Your task to perform on an android device: Search for "macbook air" on walmart.com, select the first entry, add it to the cart, then select checkout. Image 0: 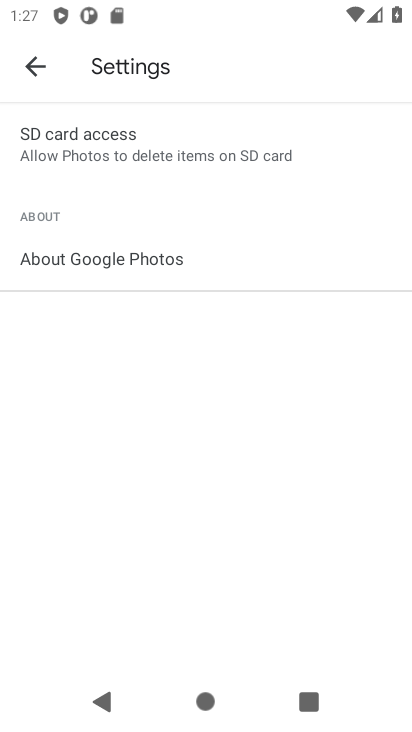
Step 0: press home button
Your task to perform on an android device: Search for "macbook air" on walmart.com, select the first entry, add it to the cart, then select checkout. Image 1: 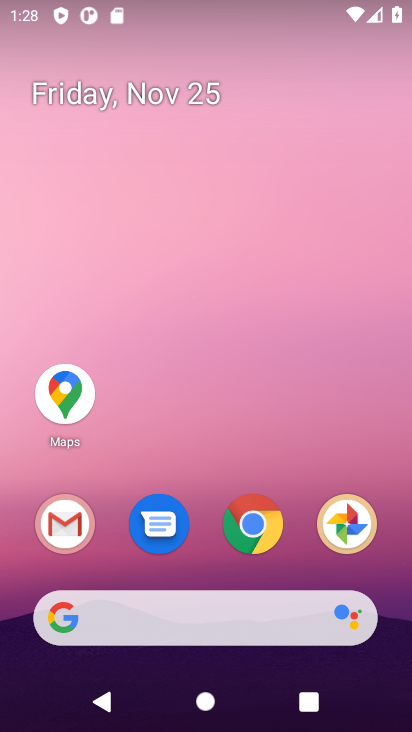
Step 1: click (237, 535)
Your task to perform on an android device: Search for "macbook air" on walmart.com, select the first entry, add it to the cart, then select checkout. Image 2: 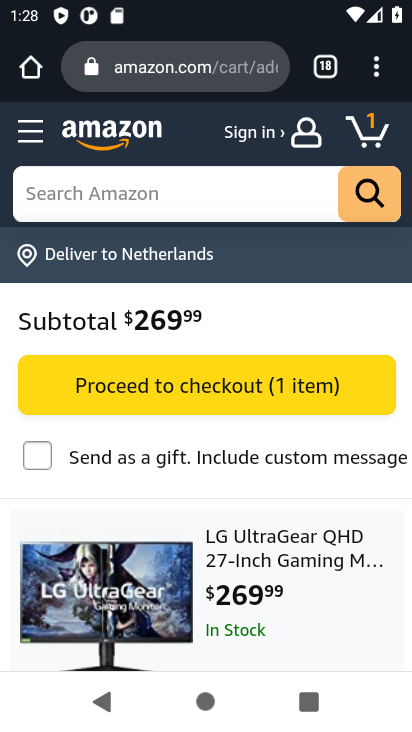
Step 2: click (180, 68)
Your task to perform on an android device: Search for "macbook air" on walmart.com, select the first entry, add it to the cart, then select checkout. Image 3: 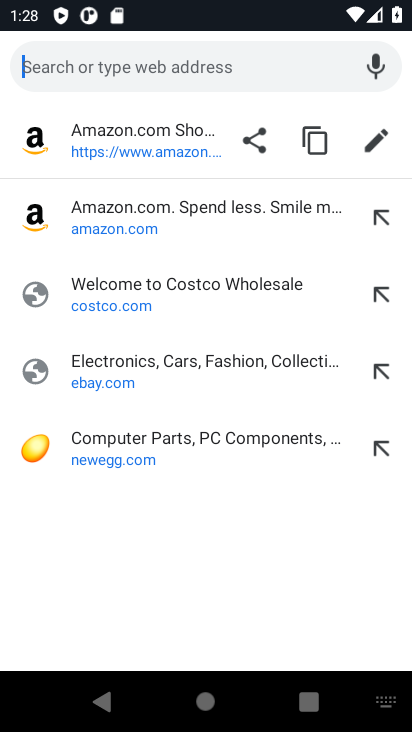
Step 3: type "walmart.com"
Your task to perform on an android device: Search for "macbook air" on walmart.com, select the first entry, add it to the cart, then select checkout. Image 4: 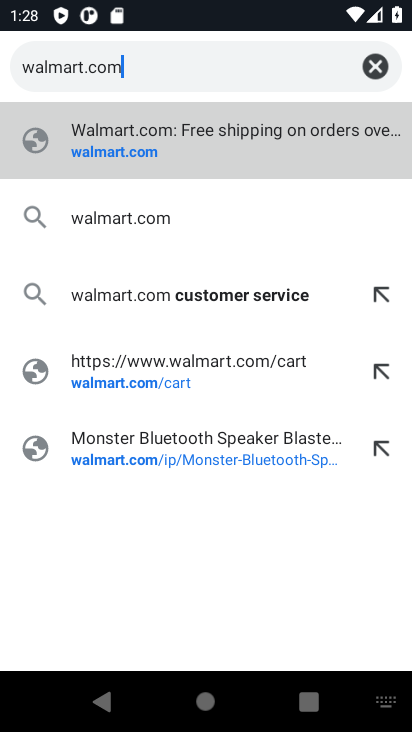
Step 4: click (115, 146)
Your task to perform on an android device: Search for "macbook air" on walmart.com, select the first entry, add it to the cart, then select checkout. Image 5: 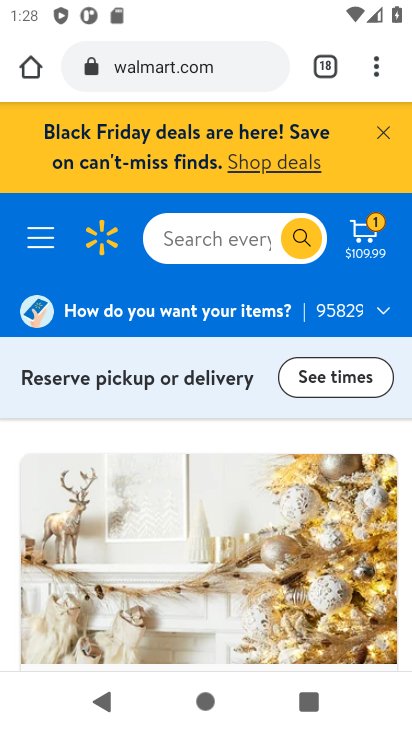
Step 5: click (210, 236)
Your task to perform on an android device: Search for "macbook air" on walmart.com, select the first entry, add it to the cart, then select checkout. Image 6: 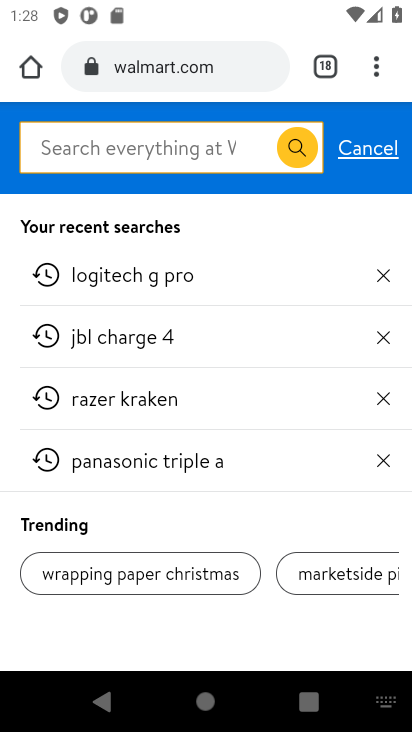
Step 6: type "macbook air"
Your task to perform on an android device: Search for "macbook air" on walmart.com, select the first entry, add it to the cart, then select checkout. Image 7: 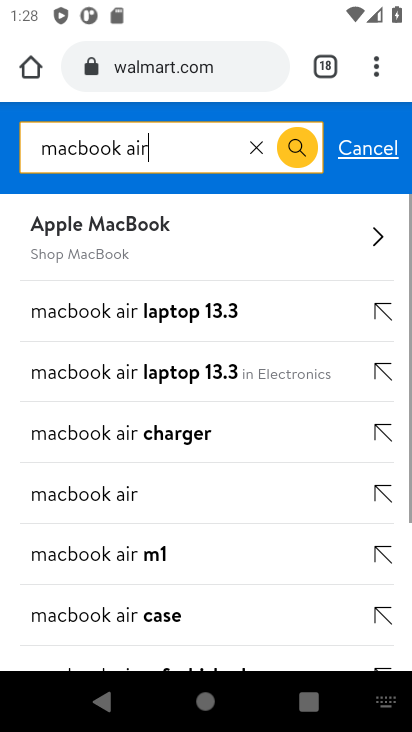
Step 7: click (84, 496)
Your task to perform on an android device: Search for "macbook air" on walmart.com, select the first entry, add it to the cart, then select checkout. Image 8: 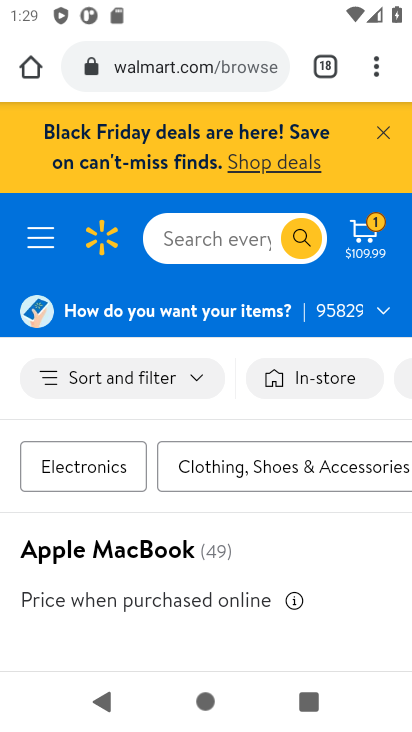
Step 8: drag from (240, 557) to (255, 243)
Your task to perform on an android device: Search for "macbook air" on walmart.com, select the first entry, add it to the cart, then select checkout. Image 9: 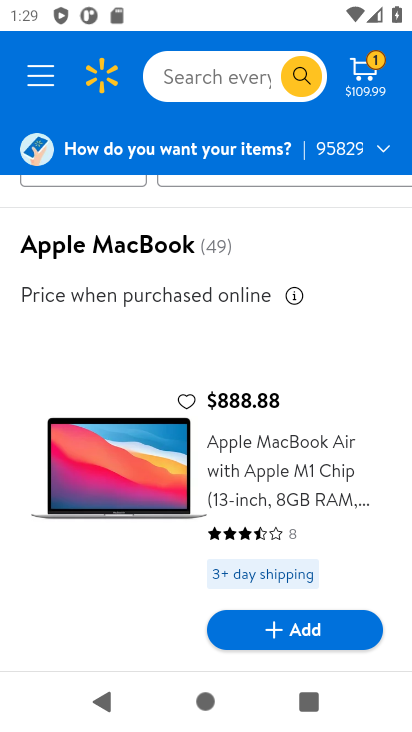
Step 9: click (291, 635)
Your task to perform on an android device: Search for "macbook air" on walmart.com, select the first entry, add it to the cart, then select checkout. Image 10: 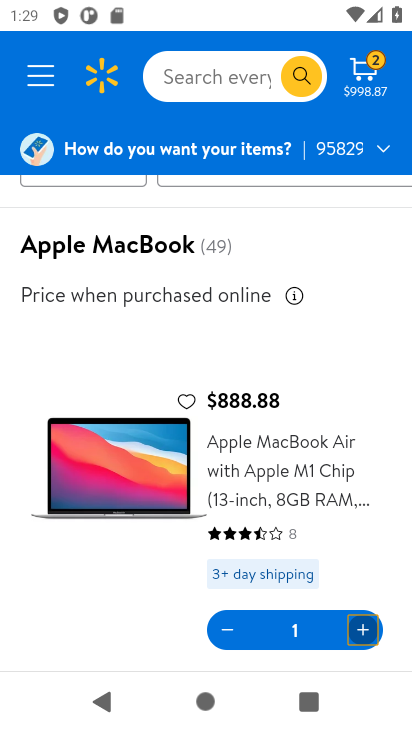
Step 10: click (365, 79)
Your task to perform on an android device: Search for "macbook air" on walmart.com, select the first entry, add it to the cart, then select checkout. Image 11: 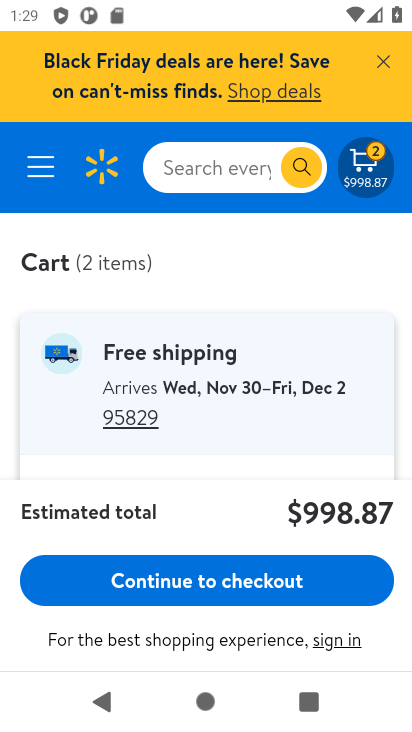
Step 11: click (200, 584)
Your task to perform on an android device: Search for "macbook air" on walmart.com, select the first entry, add it to the cart, then select checkout. Image 12: 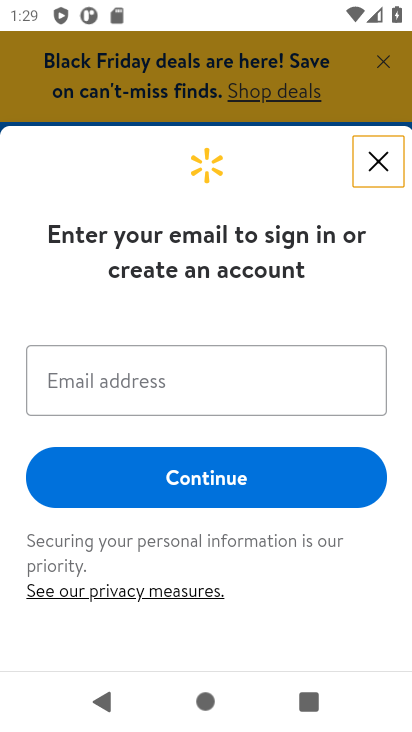
Step 12: task complete